Your task to perform on an android device: Open the web browser Image 0: 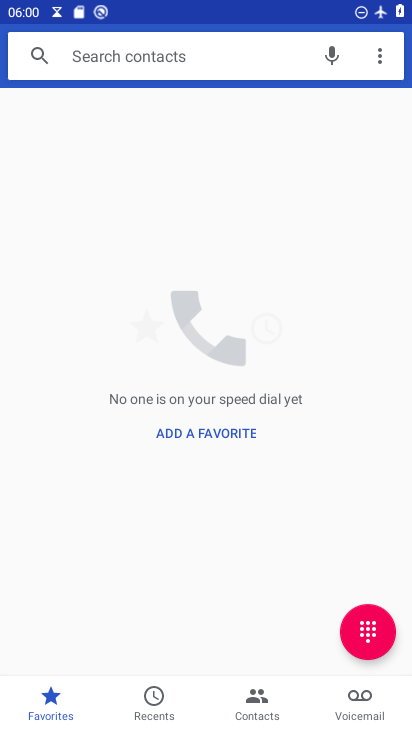
Step 0: press home button
Your task to perform on an android device: Open the web browser Image 1: 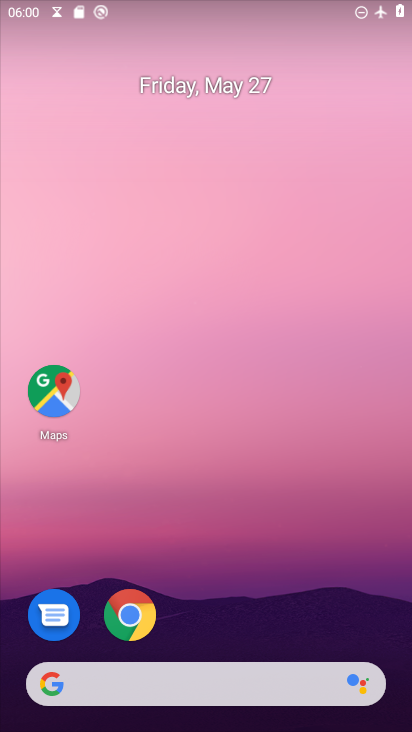
Step 1: click (128, 628)
Your task to perform on an android device: Open the web browser Image 2: 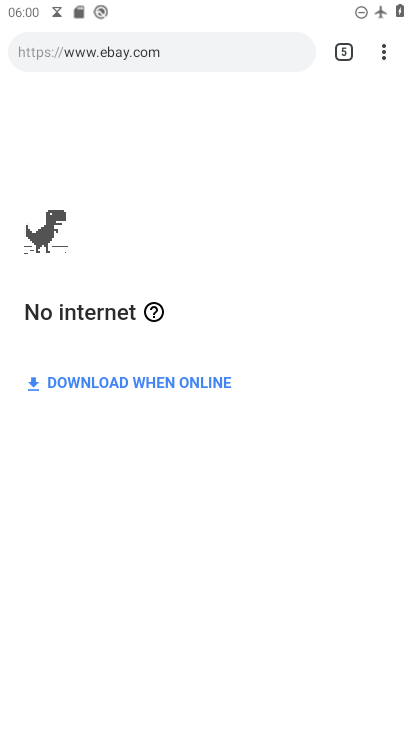
Step 2: task complete